Your task to perform on an android device: Go to location settings Image 0: 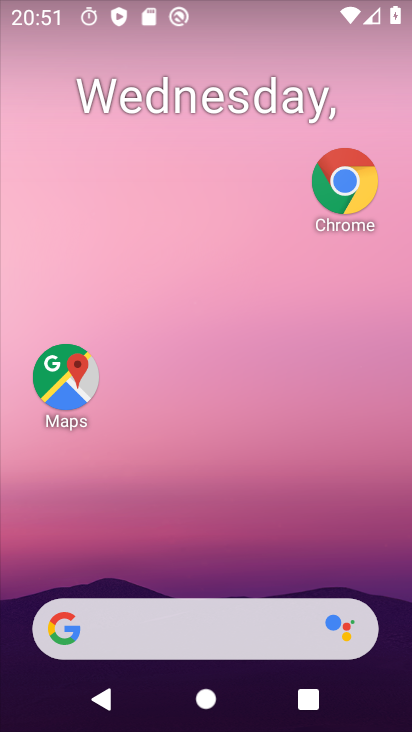
Step 0: drag from (248, 668) to (280, 262)
Your task to perform on an android device: Go to location settings Image 1: 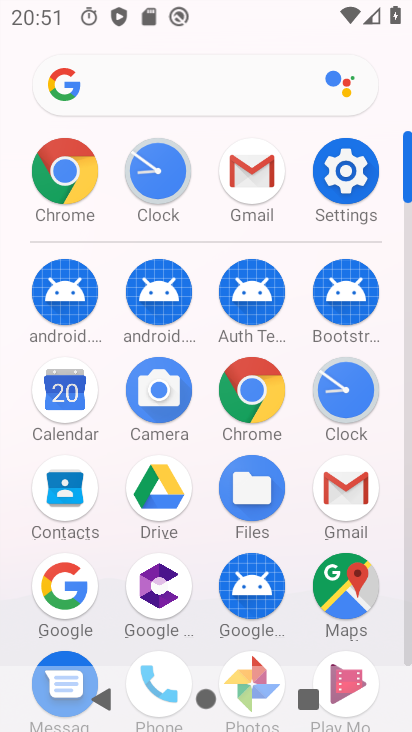
Step 1: click (348, 182)
Your task to perform on an android device: Go to location settings Image 2: 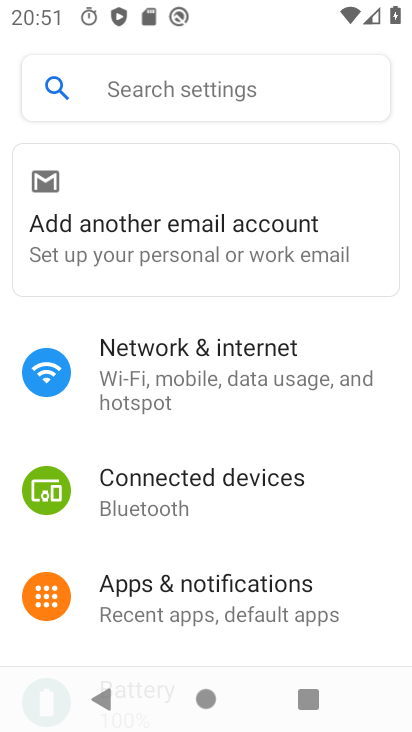
Step 2: click (174, 99)
Your task to perform on an android device: Go to location settings Image 3: 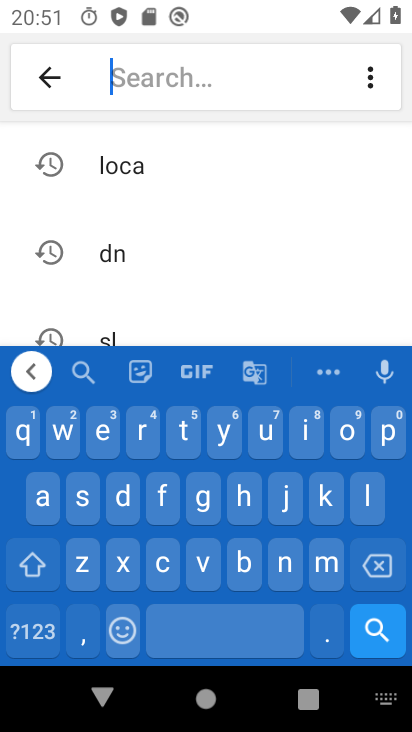
Step 3: click (147, 159)
Your task to perform on an android device: Go to location settings Image 4: 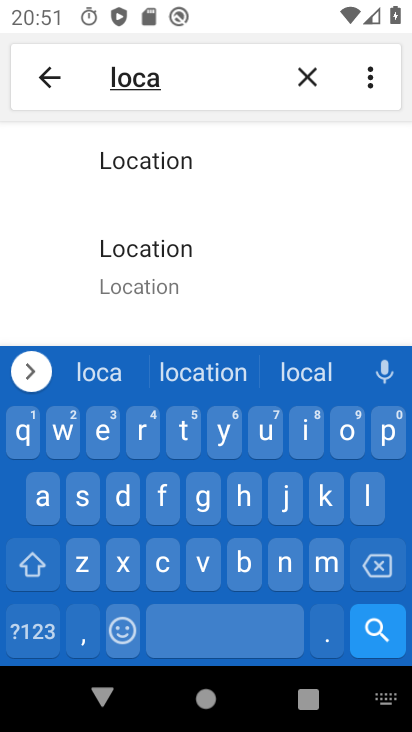
Step 4: click (137, 254)
Your task to perform on an android device: Go to location settings Image 5: 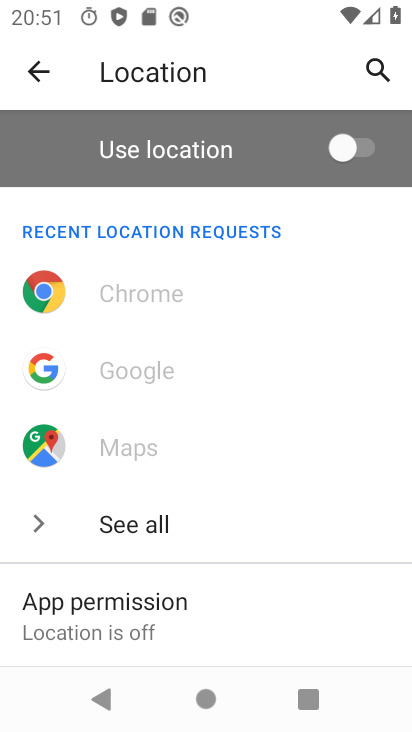
Step 5: task complete